Your task to perform on an android device: Open Google Image 0: 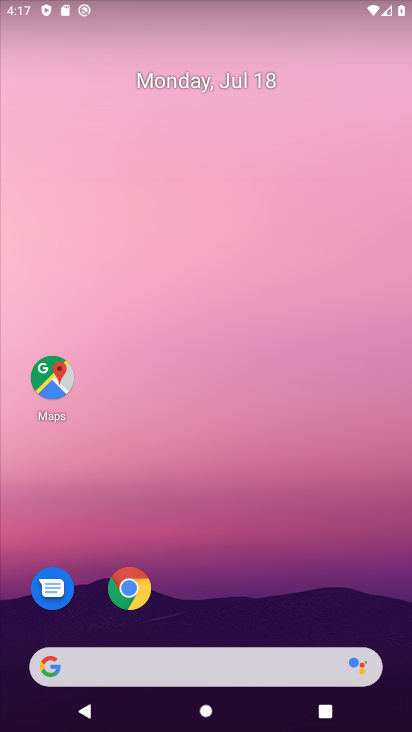
Step 0: press home button
Your task to perform on an android device: Open Google Image 1: 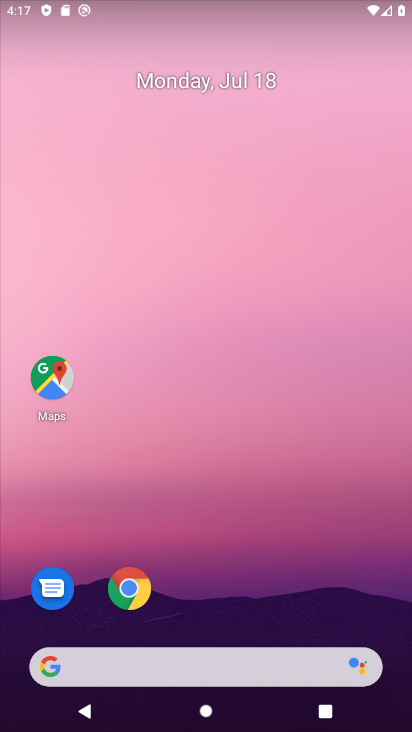
Step 1: drag from (205, 610) to (211, 28)
Your task to perform on an android device: Open Google Image 2: 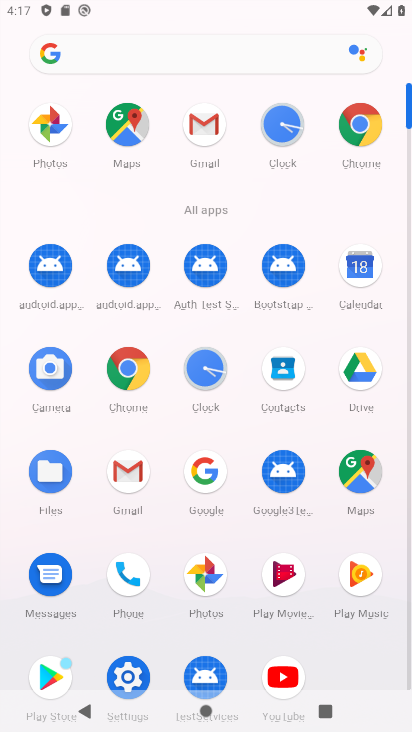
Step 2: click (202, 463)
Your task to perform on an android device: Open Google Image 3: 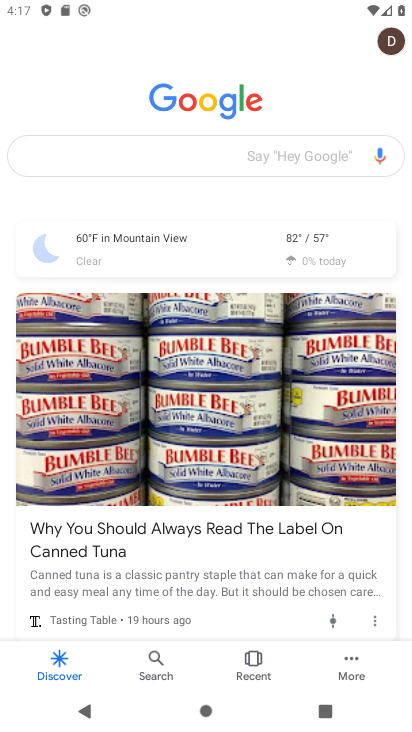
Step 3: task complete